Your task to perform on an android device: Search for vegetarian restaurants on Maps Image 0: 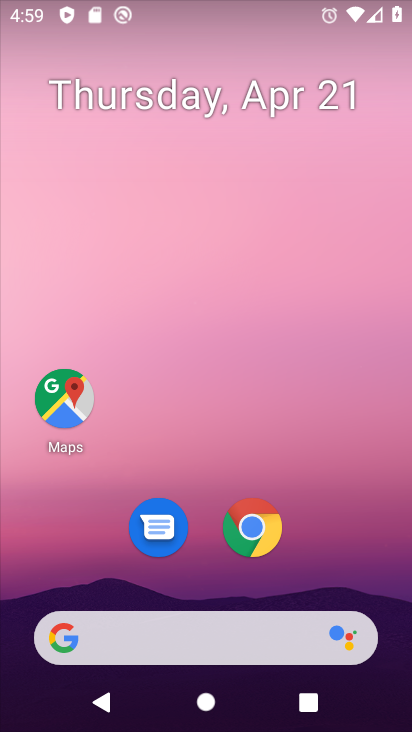
Step 0: click (343, 493)
Your task to perform on an android device: Search for vegetarian restaurants on Maps Image 1: 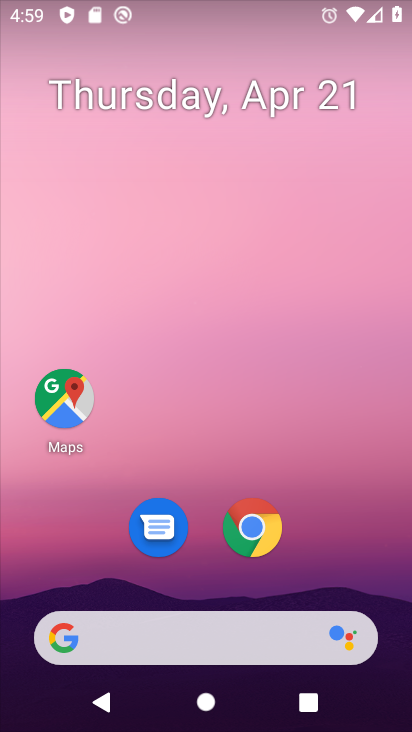
Step 1: drag from (374, 174) to (378, 74)
Your task to perform on an android device: Search for vegetarian restaurants on Maps Image 2: 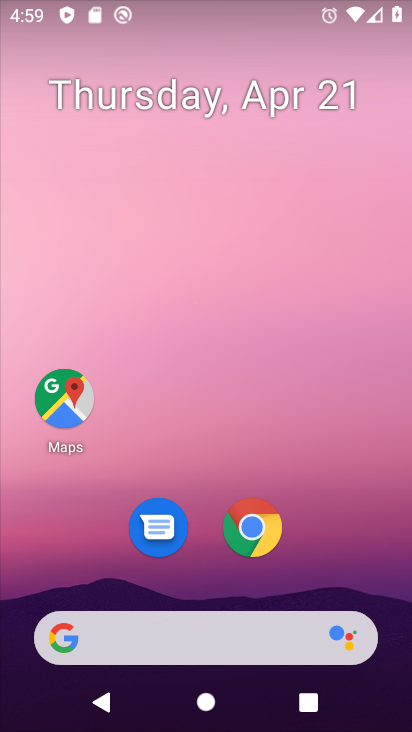
Step 2: click (75, 391)
Your task to perform on an android device: Search for vegetarian restaurants on Maps Image 3: 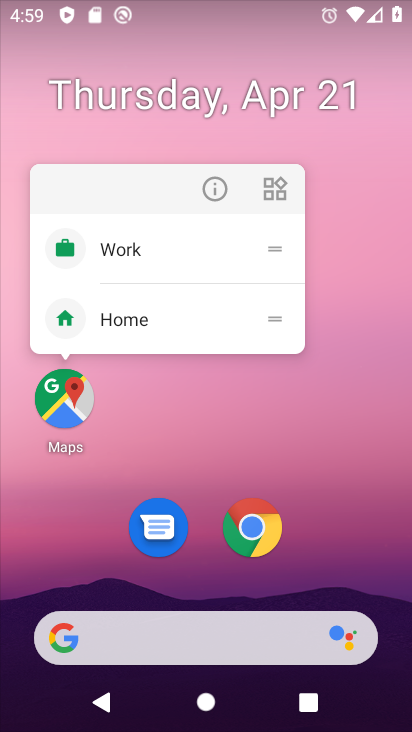
Step 3: click (75, 391)
Your task to perform on an android device: Search for vegetarian restaurants on Maps Image 4: 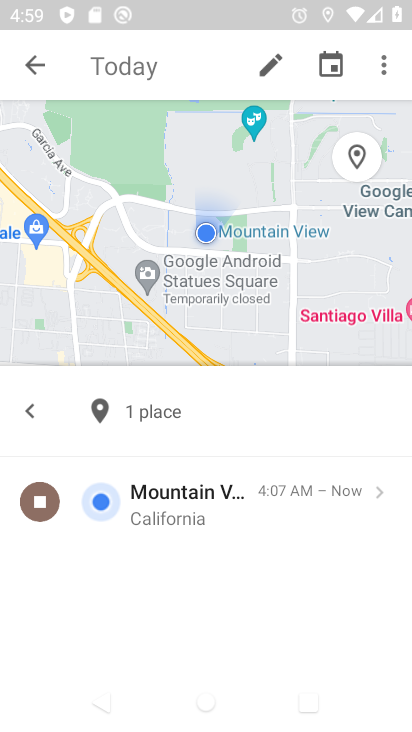
Step 4: click (153, 78)
Your task to perform on an android device: Search for vegetarian restaurants on Maps Image 5: 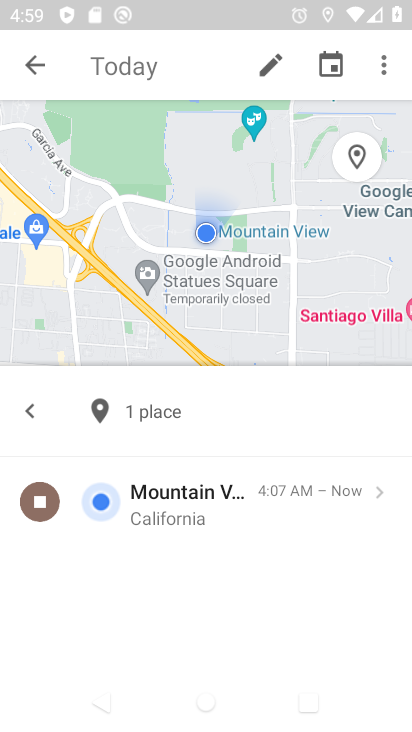
Step 5: click (167, 68)
Your task to perform on an android device: Search for vegetarian restaurants on Maps Image 6: 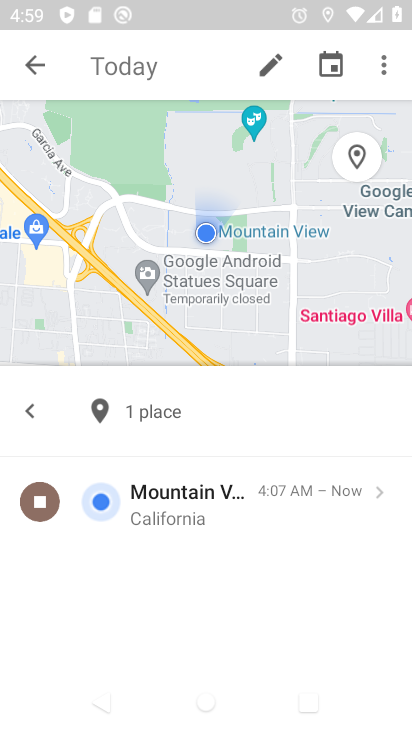
Step 6: click (193, 67)
Your task to perform on an android device: Search for vegetarian restaurants on Maps Image 7: 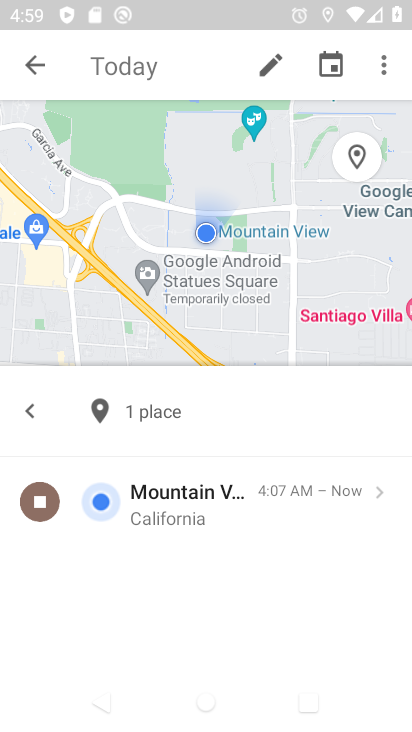
Step 7: click (24, 61)
Your task to perform on an android device: Search for vegetarian restaurants on Maps Image 8: 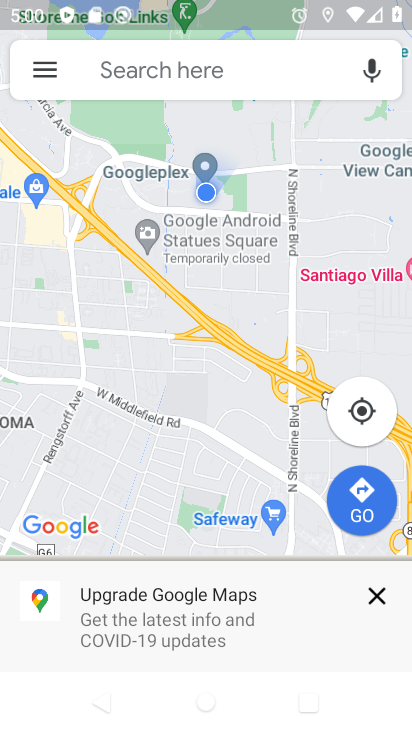
Step 8: click (118, 75)
Your task to perform on an android device: Search for vegetarian restaurants on Maps Image 9: 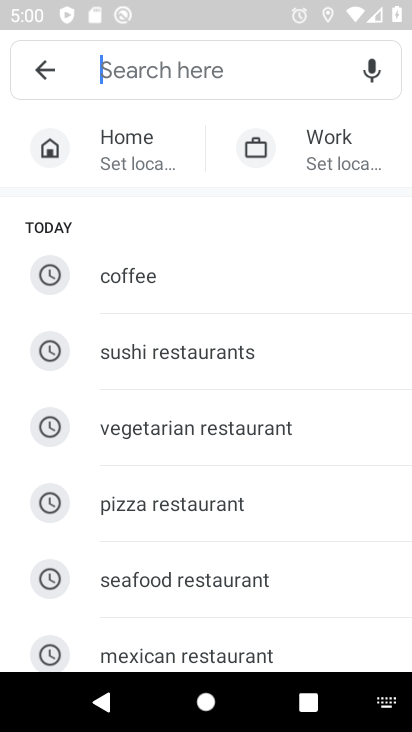
Step 9: type "vegetarian restaurants"
Your task to perform on an android device: Search for vegetarian restaurants on Maps Image 10: 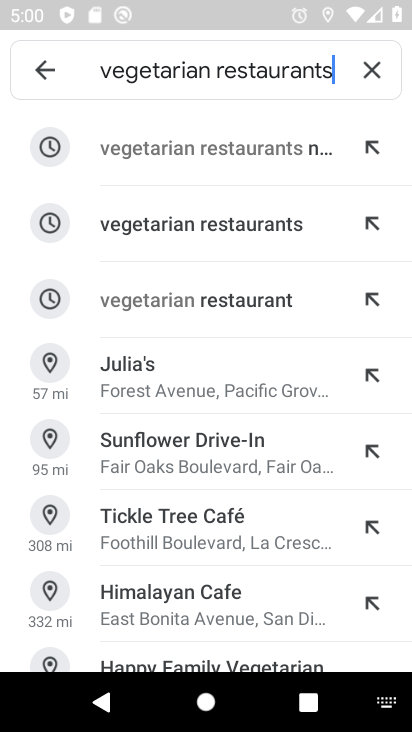
Step 10: click (198, 152)
Your task to perform on an android device: Search for vegetarian restaurants on Maps Image 11: 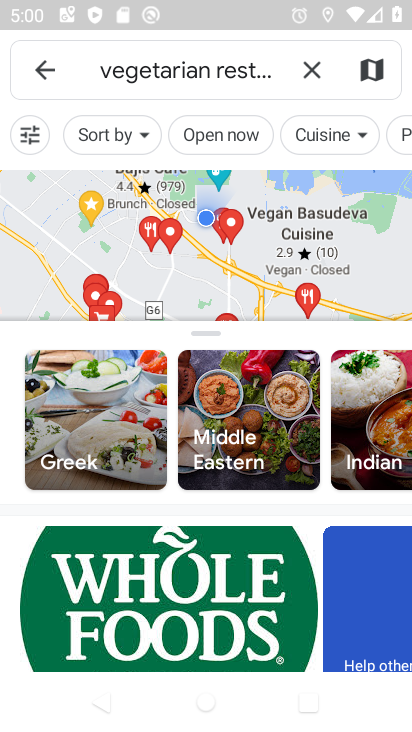
Step 11: task complete